Your task to perform on an android device: Open privacy settings Image 0: 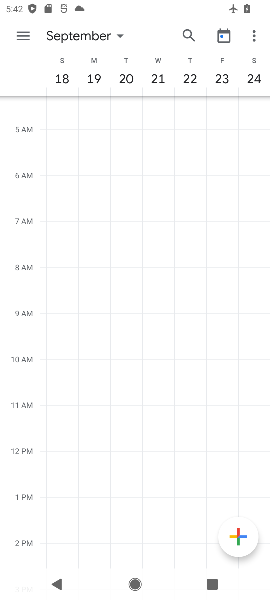
Step 0: press home button
Your task to perform on an android device: Open privacy settings Image 1: 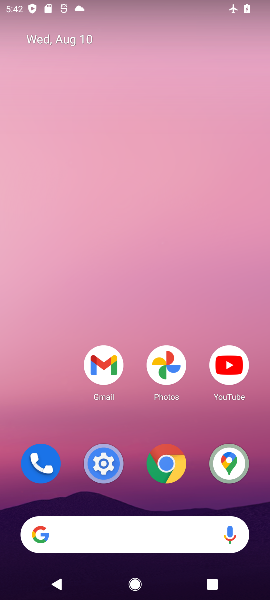
Step 1: click (100, 470)
Your task to perform on an android device: Open privacy settings Image 2: 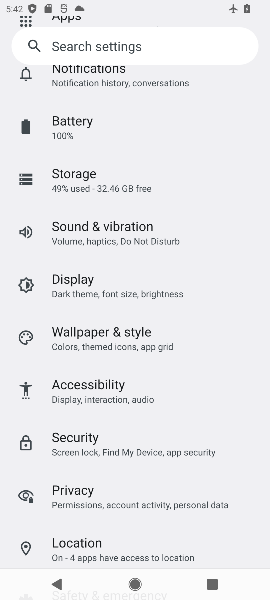
Step 2: click (77, 496)
Your task to perform on an android device: Open privacy settings Image 3: 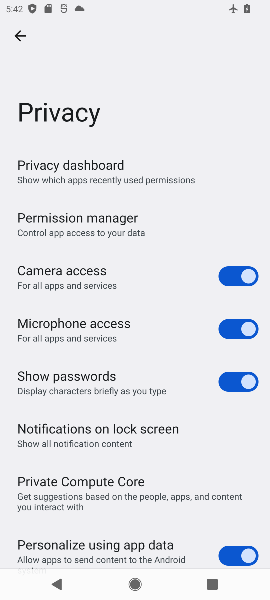
Step 3: task complete